Your task to perform on an android device: Open location settings Image 0: 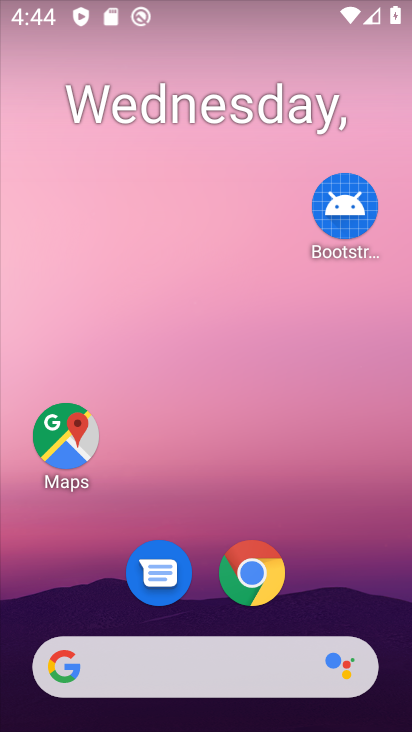
Step 0: drag from (345, 460) to (379, 98)
Your task to perform on an android device: Open location settings Image 1: 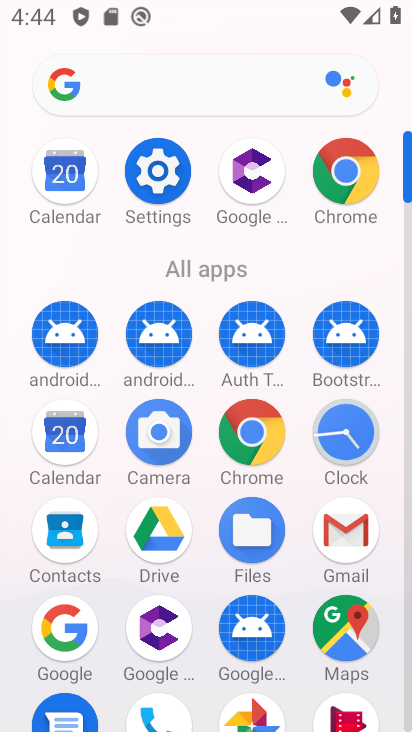
Step 1: click (151, 168)
Your task to perform on an android device: Open location settings Image 2: 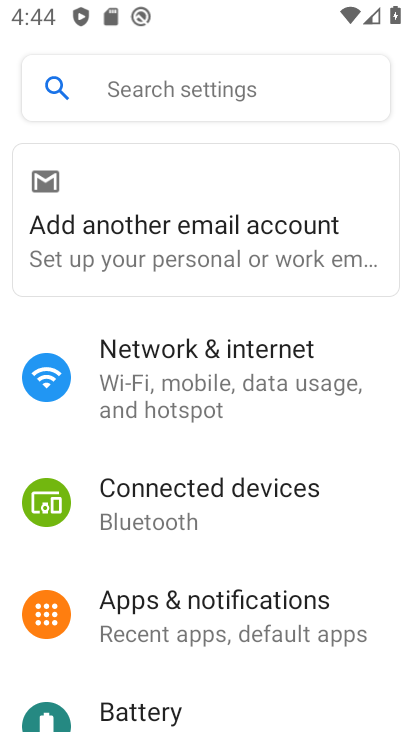
Step 2: drag from (288, 471) to (291, 205)
Your task to perform on an android device: Open location settings Image 3: 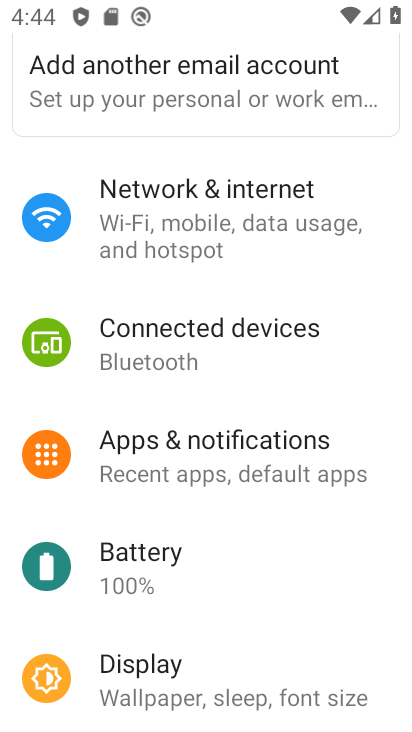
Step 3: drag from (275, 603) to (345, 232)
Your task to perform on an android device: Open location settings Image 4: 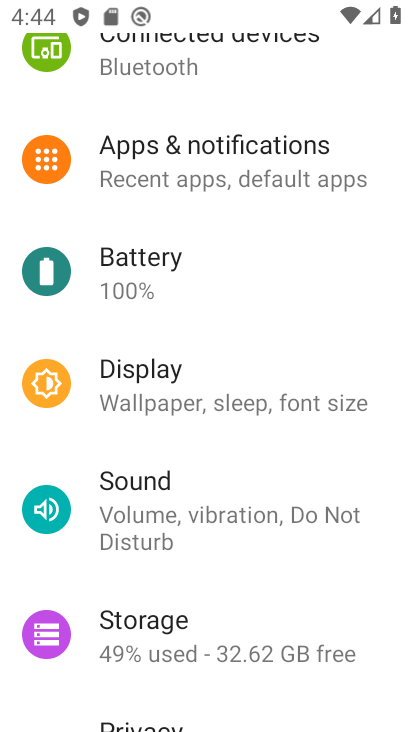
Step 4: click (281, 241)
Your task to perform on an android device: Open location settings Image 5: 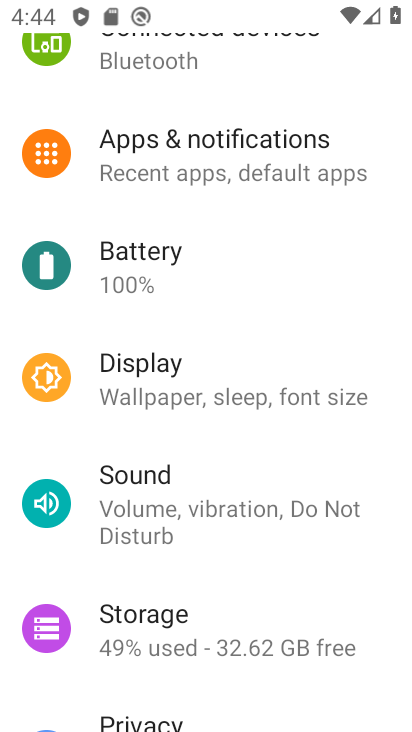
Step 5: drag from (303, 693) to (340, 241)
Your task to perform on an android device: Open location settings Image 6: 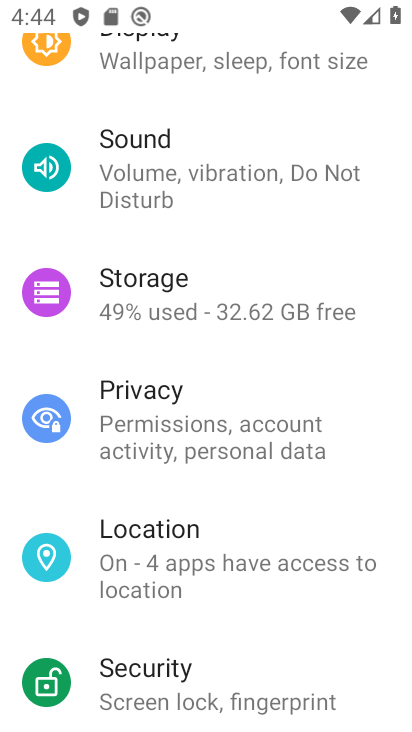
Step 6: click (160, 539)
Your task to perform on an android device: Open location settings Image 7: 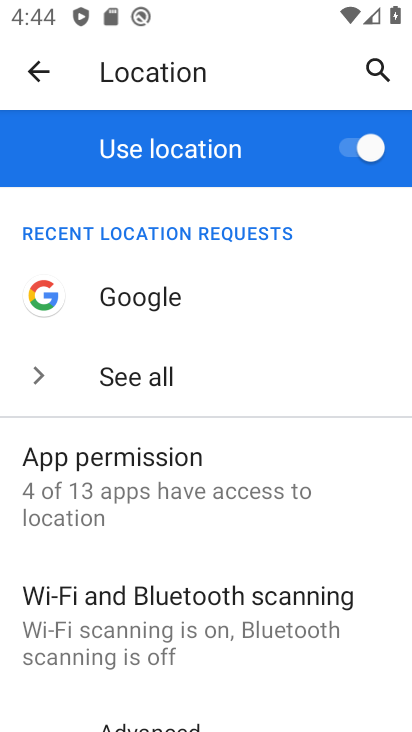
Step 7: task complete